Your task to perform on an android device: Open Chrome and go to the settings page Image 0: 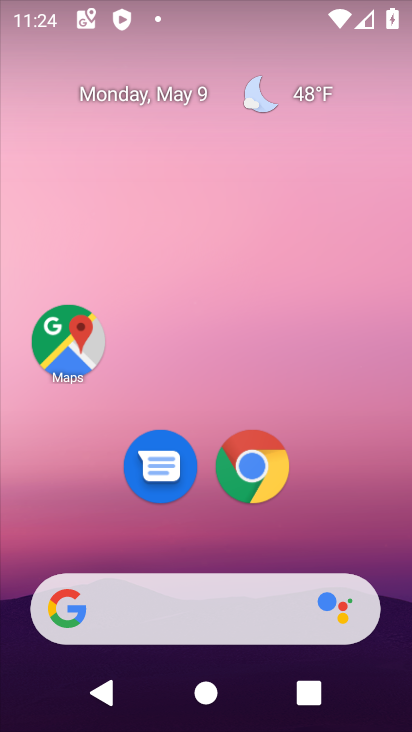
Step 0: click (253, 468)
Your task to perform on an android device: Open Chrome and go to the settings page Image 1: 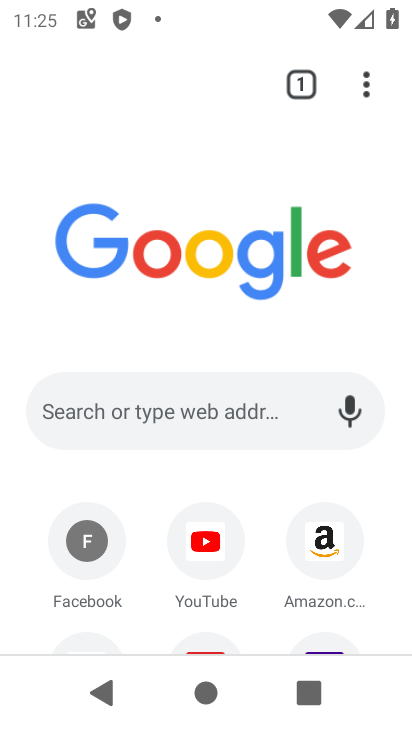
Step 1: click (364, 93)
Your task to perform on an android device: Open Chrome and go to the settings page Image 2: 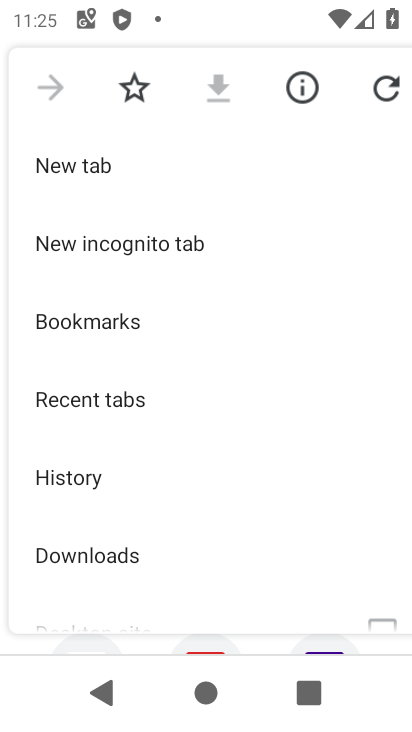
Step 2: drag from (176, 543) to (170, 188)
Your task to perform on an android device: Open Chrome and go to the settings page Image 3: 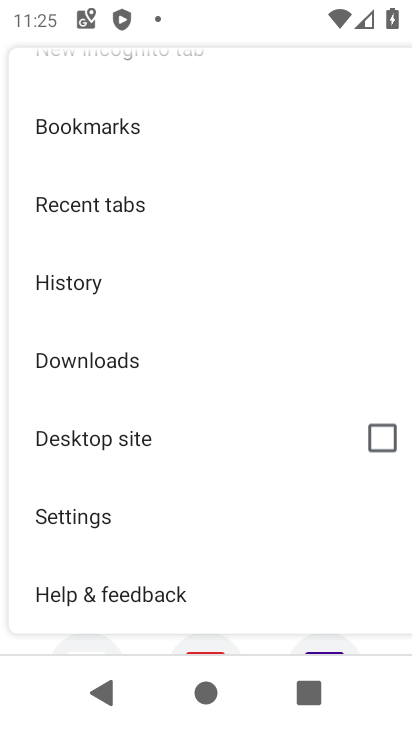
Step 3: click (47, 523)
Your task to perform on an android device: Open Chrome and go to the settings page Image 4: 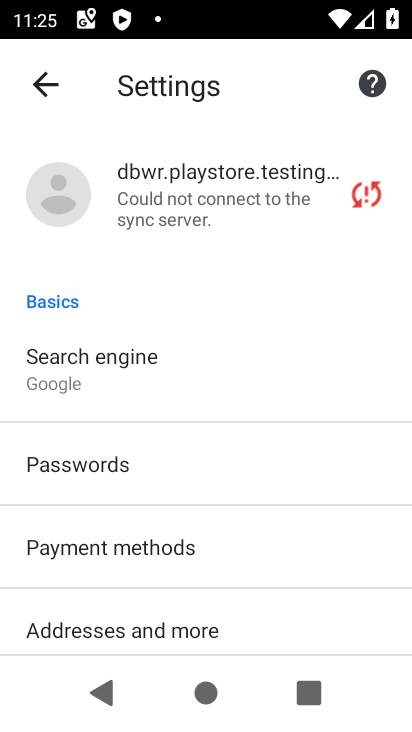
Step 4: task complete